Your task to perform on an android device: Open Google Chrome and click the shortcut for Amazon.com Image 0: 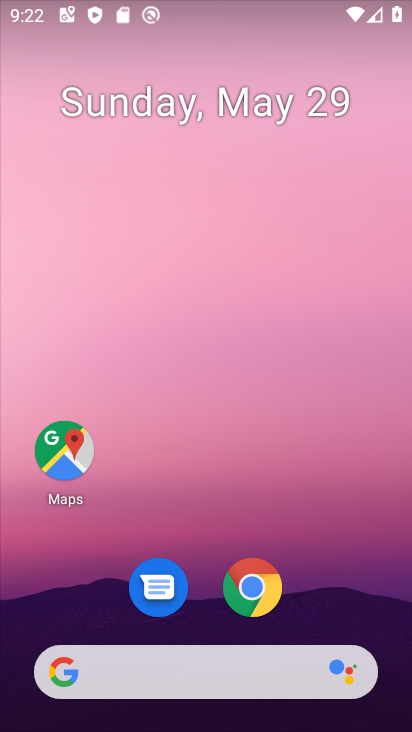
Step 0: click (263, 574)
Your task to perform on an android device: Open Google Chrome and click the shortcut for Amazon.com Image 1: 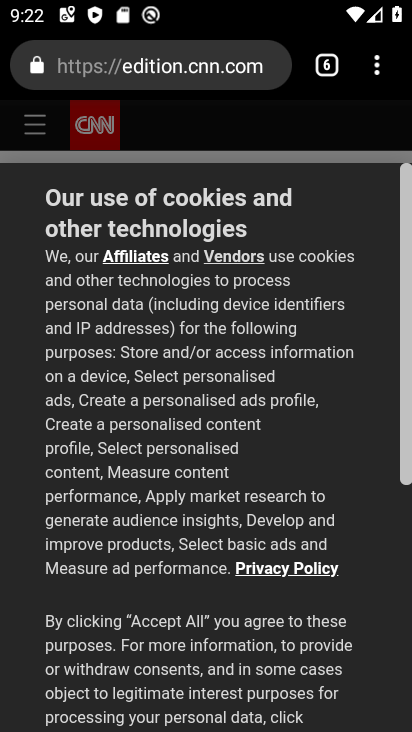
Step 1: click (333, 53)
Your task to perform on an android device: Open Google Chrome and click the shortcut for Amazon.com Image 2: 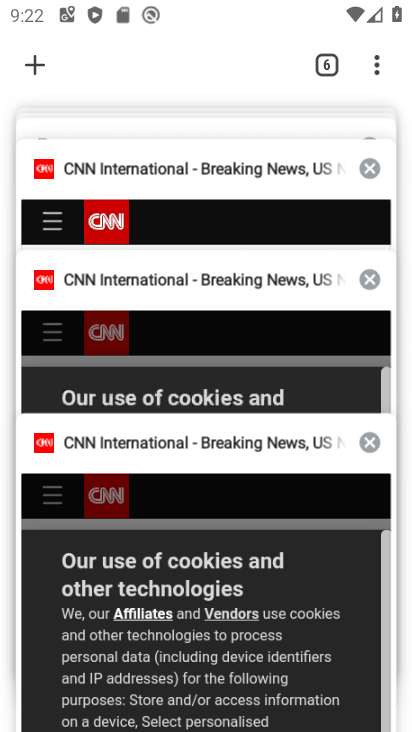
Step 2: click (34, 53)
Your task to perform on an android device: Open Google Chrome and click the shortcut for Amazon.com Image 3: 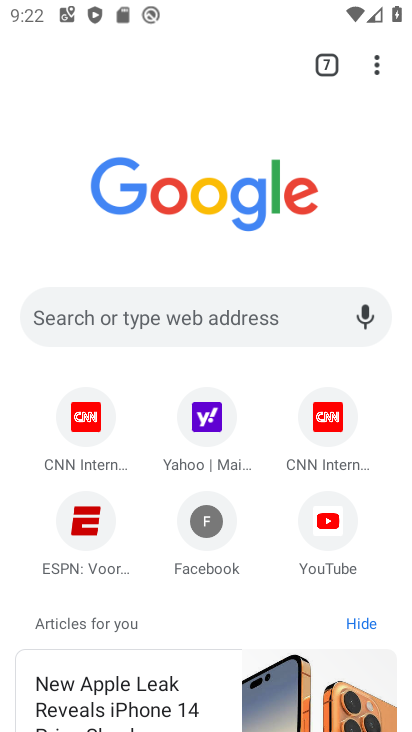
Step 3: click (149, 310)
Your task to perform on an android device: Open Google Chrome and click the shortcut for Amazon.com Image 4: 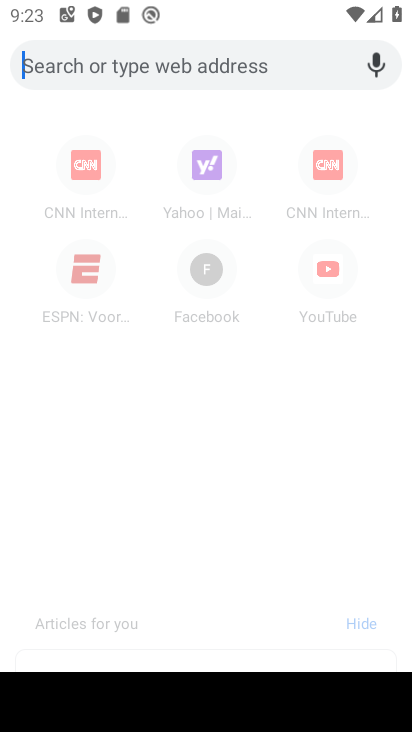
Step 4: type "amazon"
Your task to perform on an android device: Open Google Chrome and click the shortcut for Amazon.com Image 5: 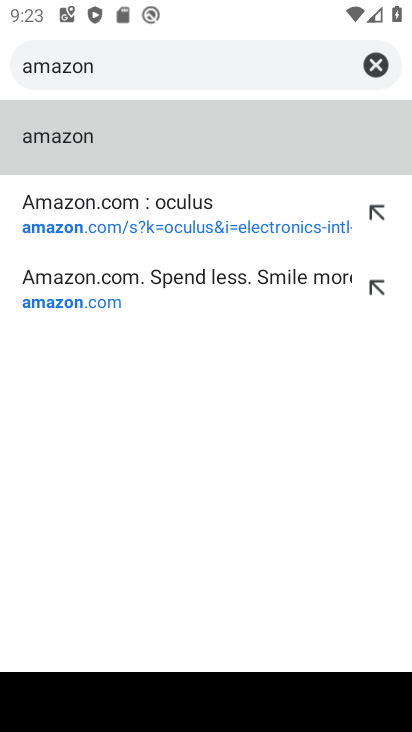
Step 5: click (220, 138)
Your task to perform on an android device: Open Google Chrome and click the shortcut for Amazon.com Image 6: 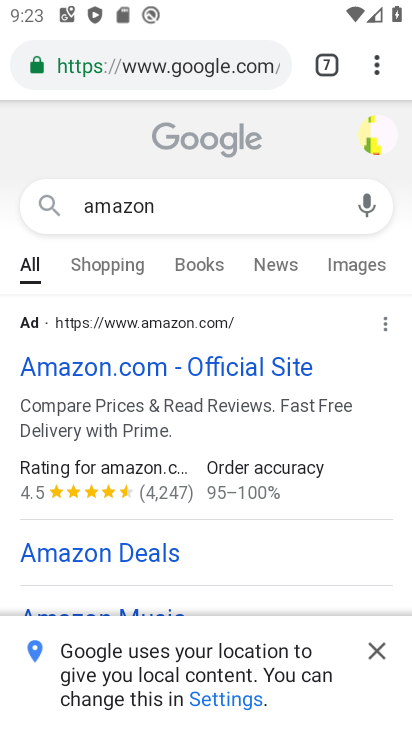
Step 6: task complete